Your task to perform on an android device: Open Google Chrome Image 0: 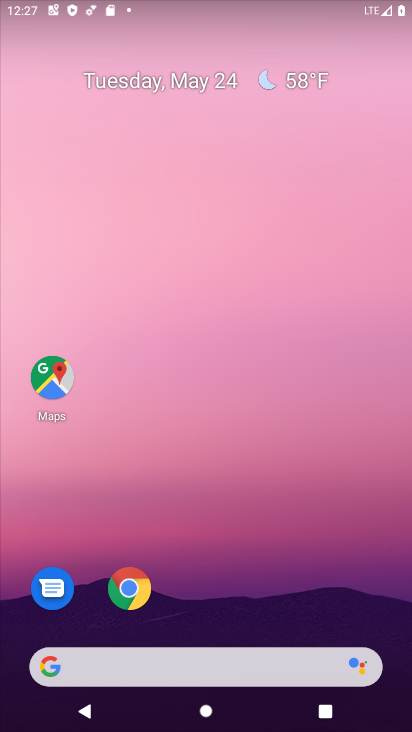
Step 0: drag from (231, 606) to (175, 67)
Your task to perform on an android device: Open Google Chrome Image 1: 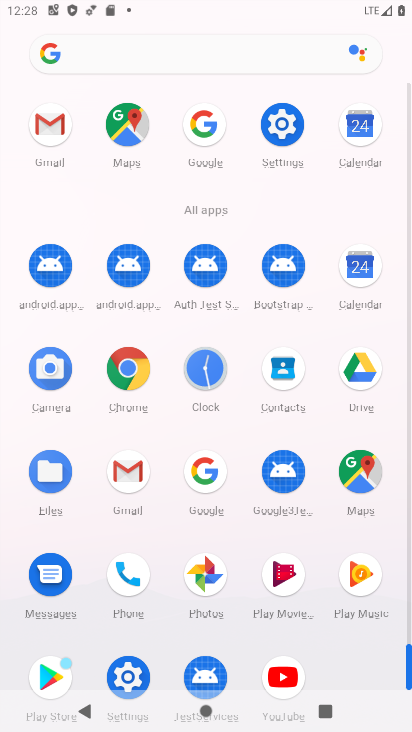
Step 1: click (133, 398)
Your task to perform on an android device: Open Google Chrome Image 2: 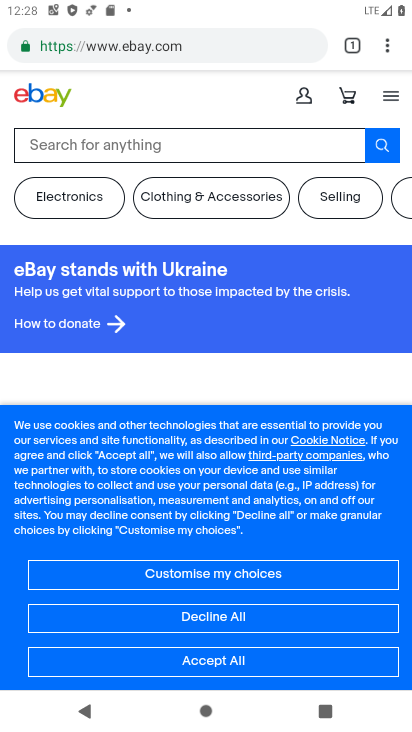
Step 2: task complete